Your task to perform on an android device: Open the map Image 0: 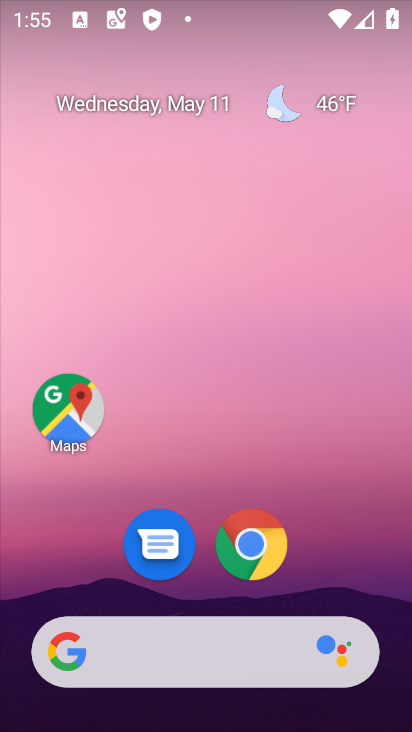
Step 0: click (65, 409)
Your task to perform on an android device: Open the map Image 1: 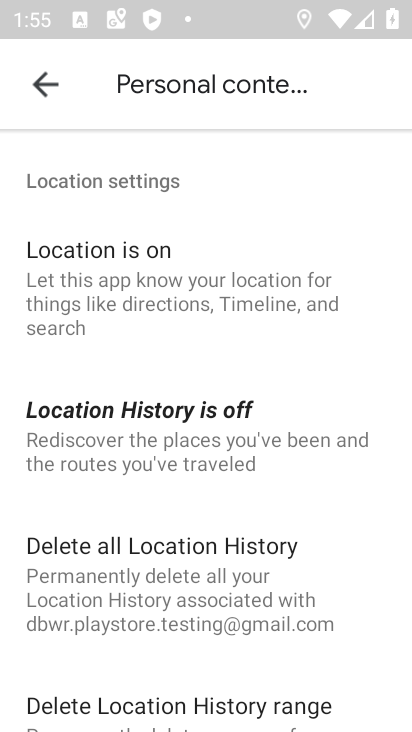
Step 1: task complete